Your task to perform on an android device: Open CNN.com Image 0: 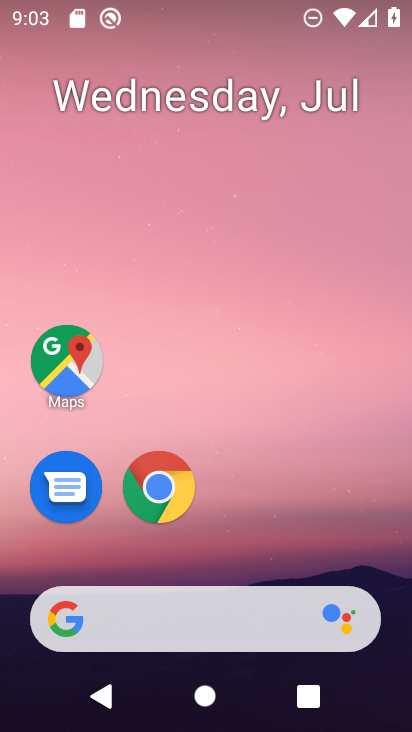
Step 0: drag from (367, 538) to (347, 88)
Your task to perform on an android device: Open CNN.com Image 1: 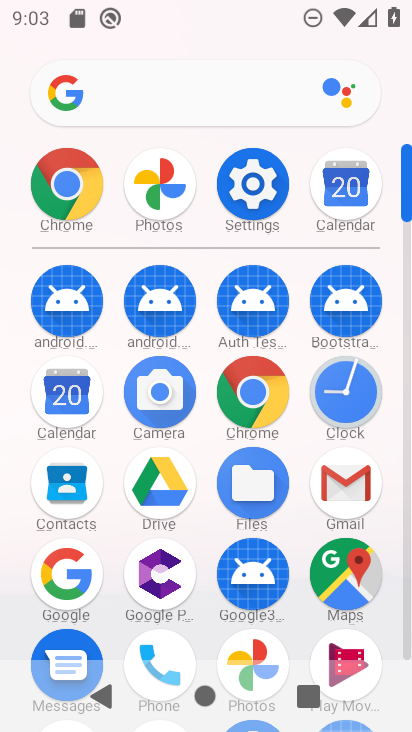
Step 1: click (268, 383)
Your task to perform on an android device: Open CNN.com Image 2: 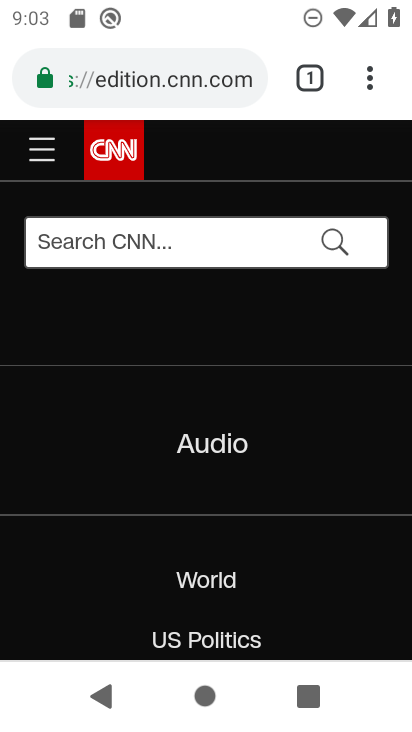
Step 2: task complete